Your task to perform on an android device: Open Google Image 0: 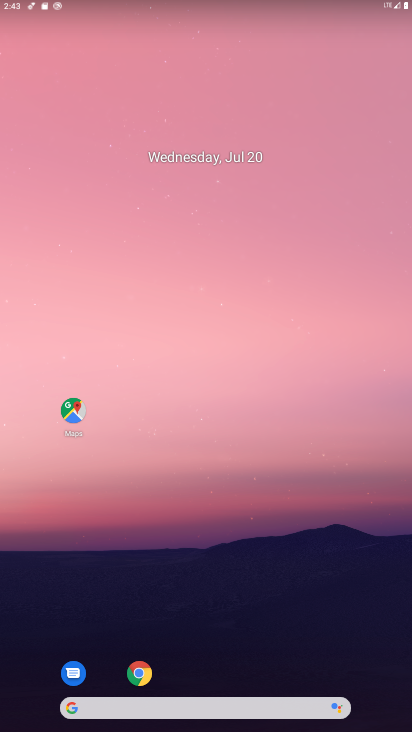
Step 0: click (66, 705)
Your task to perform on an android device: Open Google Image 1: 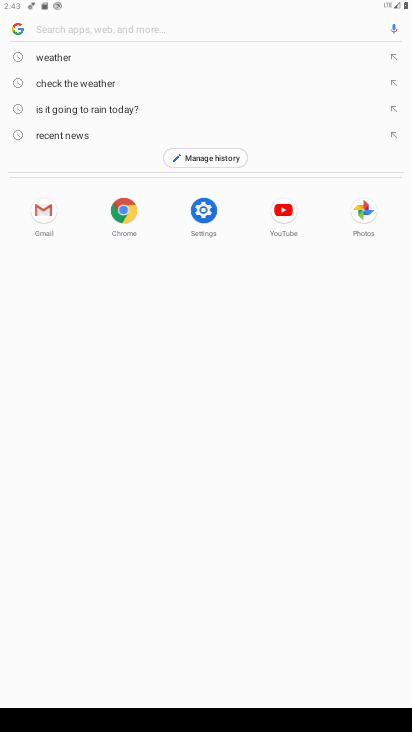
Step 1: click (15, 32)
Your task to perform on an android device: Open Google Image 2: 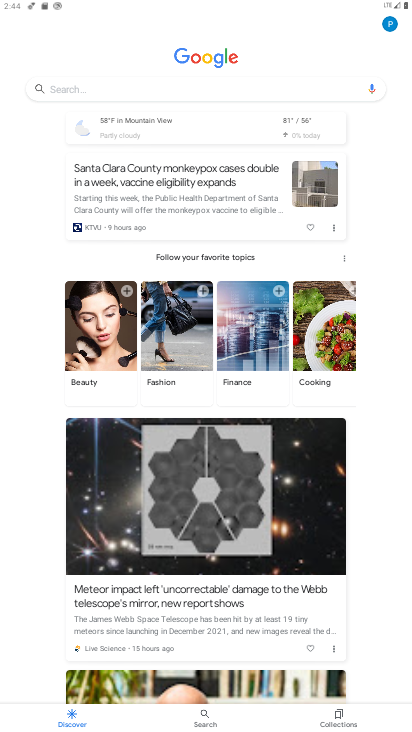
Step 2: task complete